Your task to perform on an android device: Do I have any events today? Image 0: 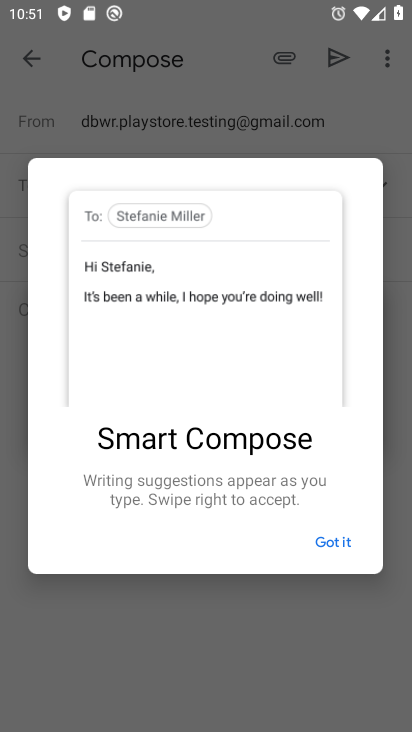
Step 0: press home button
Your task to perform on an android device: Do I have any events today? Image 1: 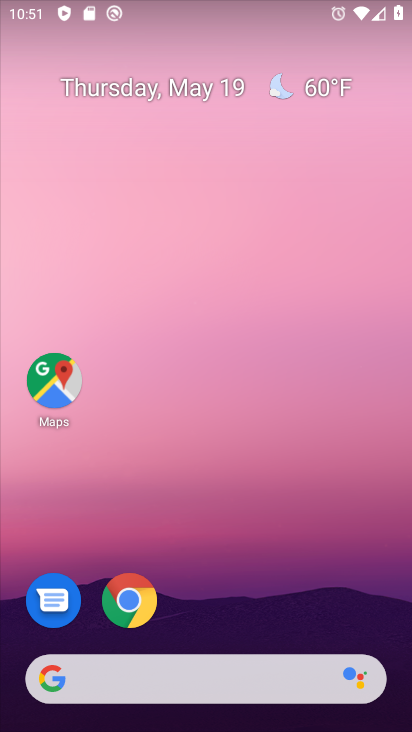
Step 1: drag from (372, 598) to (364, 290)
Your task to perform on an android device: Do I have any events today? Image 2: 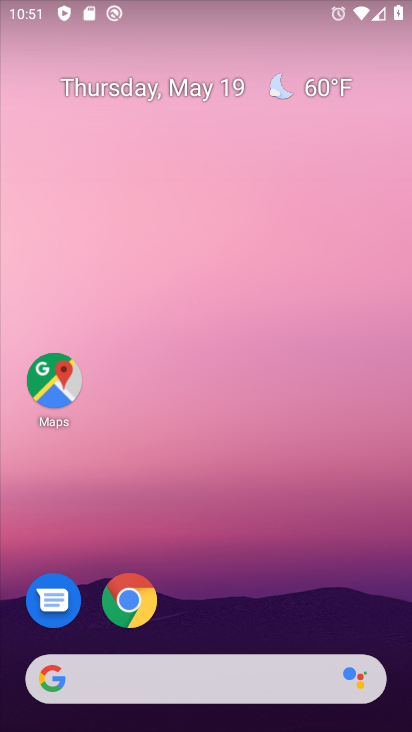
Step 2: drag from (367, 609) to (369, 263)
Your task to perform on an android device: Do I have any events today? Image 3: 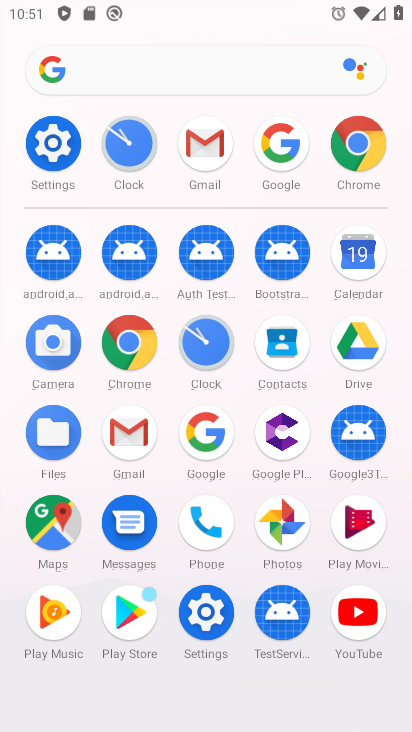
Step 3: click (366, 264)
Your task to perform on an android device: Do I have any events today? Image 4: 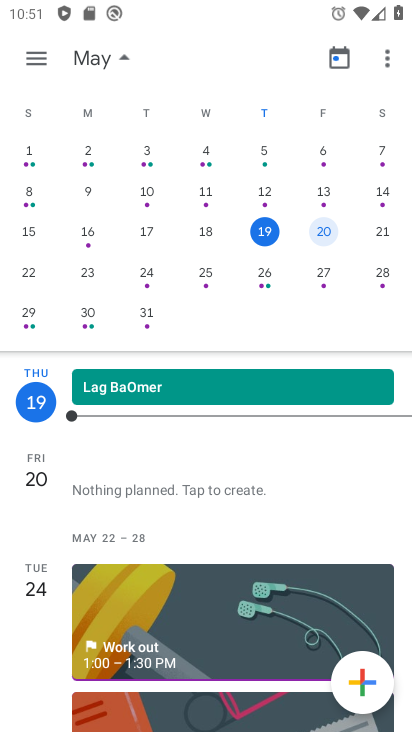
Step 4: click (326, 233)
Your task to perform on an android device: Do I have any events today? Image 5: 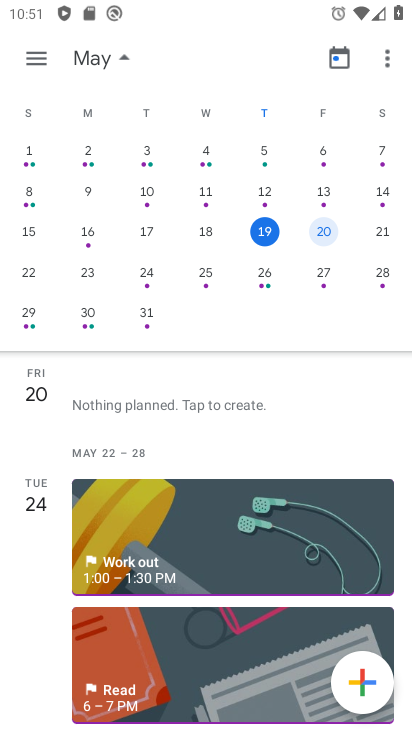
Step 5: click (209, 396)
Your task to perform on an android device: Do I have any events today? Image 6: 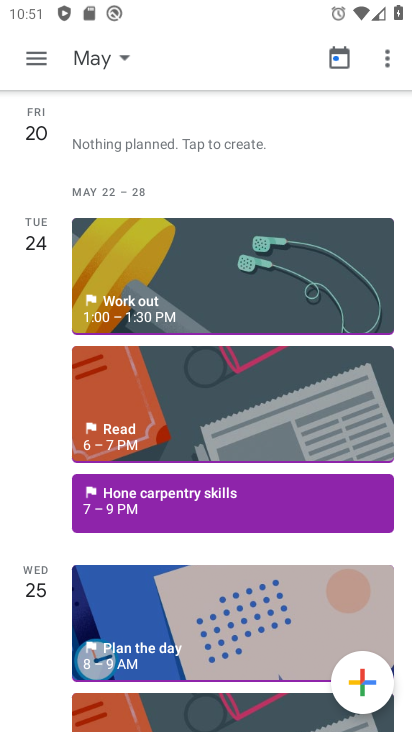
Step 6: task complete